Your task to perform on an android device: toggle show notifications on the lock screen Image 0: 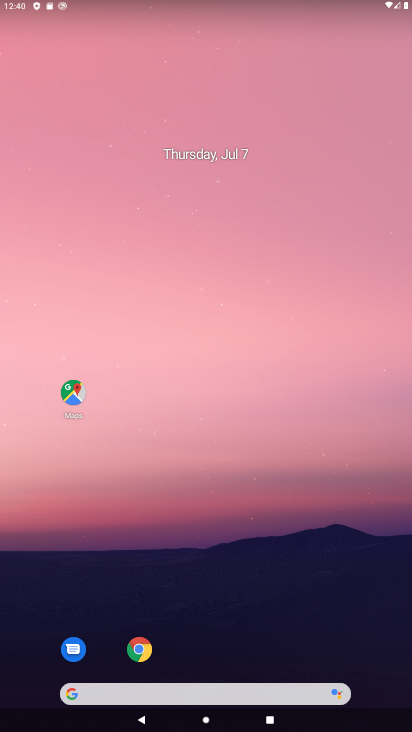
Step 0: drag from (209, 660) to (175, 182)
Your task to perform on an android device: toggle show notifications on the lock screen Image 1: 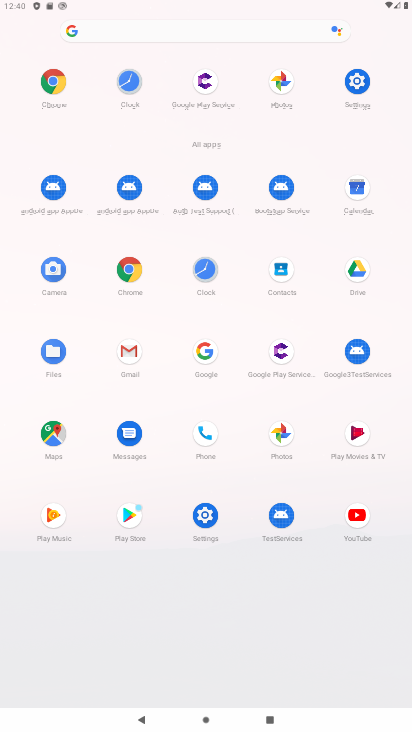
Step 1: click (199, 513)
Your task to perform on an android device: toggle show notifications on the lock screen Image 2: 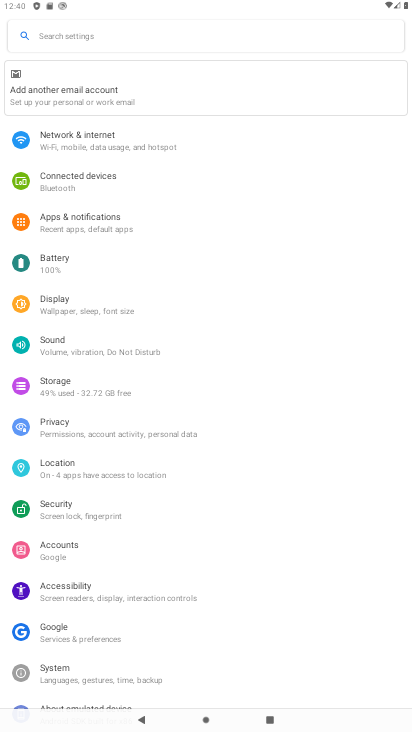
Step 2: click (99, 231)
Your task to perform on an android device: toggle show notifications on the lock screen Image 3: 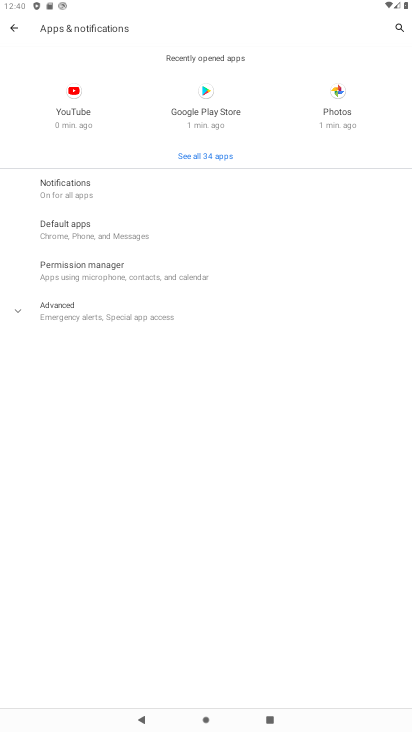
Step 3: click (79, 312)
Your task to perform on an android device: toggle show notifications on the lock screen Image 4: 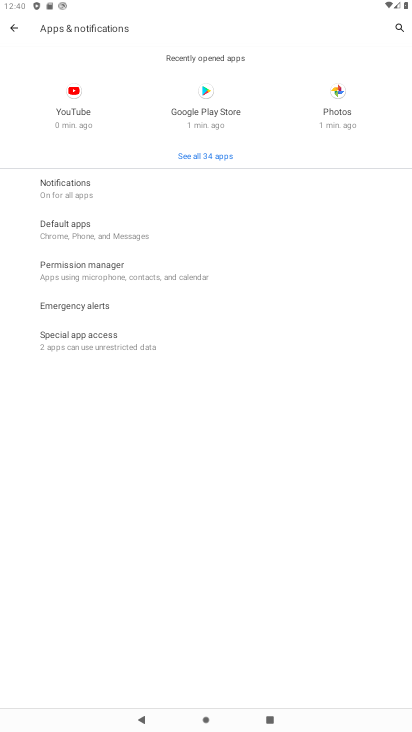
Step 4: click (54, 198)
Your task to perform on an android device: toggle show notifications on the lock screen Image 5: 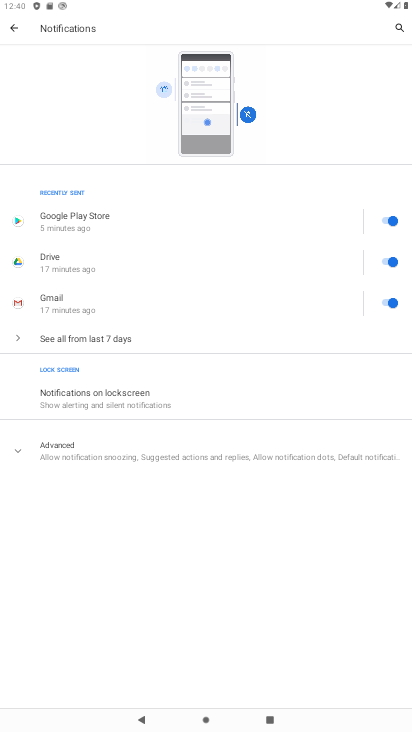
Step 5: click (67, 453)
Your task to perform on an android device: toggle show notifications on the lock screen Image 6: 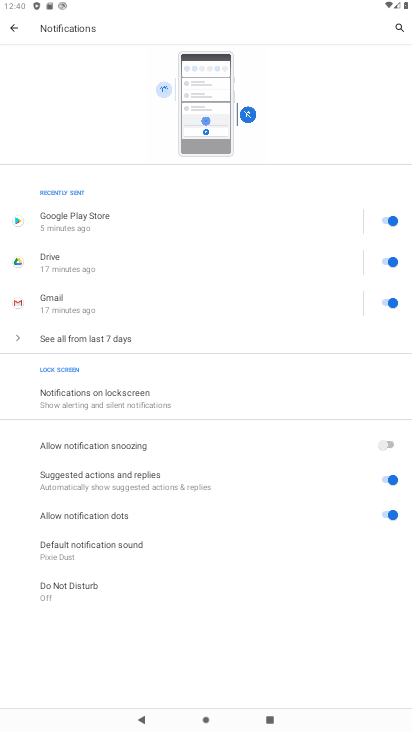
Step 6: click (62, 402)
Your task to perform on an android device: toggle show notifications on the lock screen Image 7: 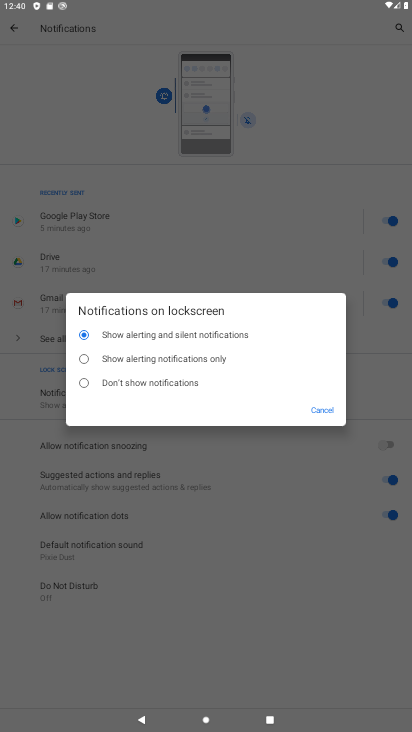
Step 7: click (80, 362)
Your task to perform on an android device: toggle show notifications on the lock screen Image 8: 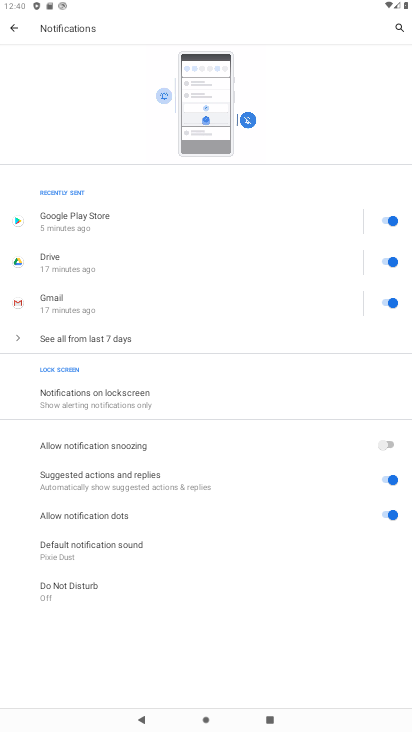
Step 8: task complete